Your task to perform on an android device: change notification settings in the gmail app Image 0: 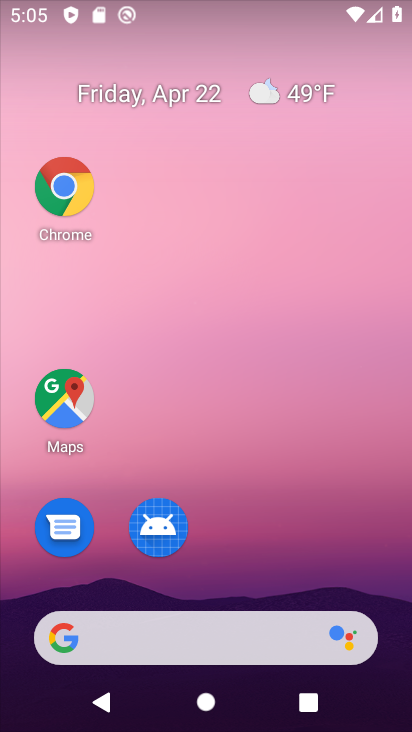
Step 0: drag from (307, 687) to (212, 107)
Your task to perform on an android device: change notification settings in the gmail app Image 1: 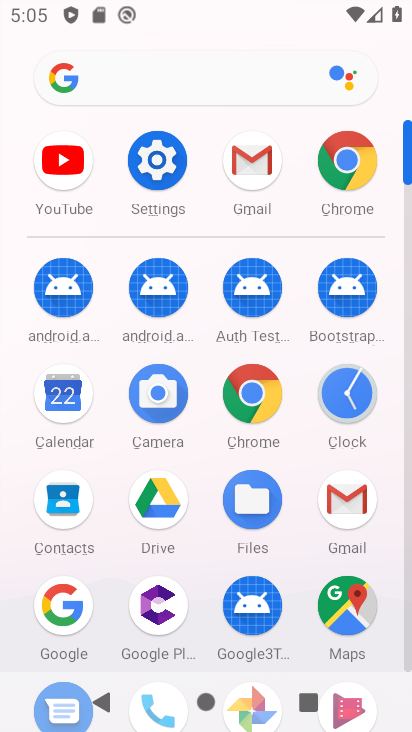
Step 1: click (248, 165)
Your task to perform on an android device: change notification settings in the gmail app Image 2: 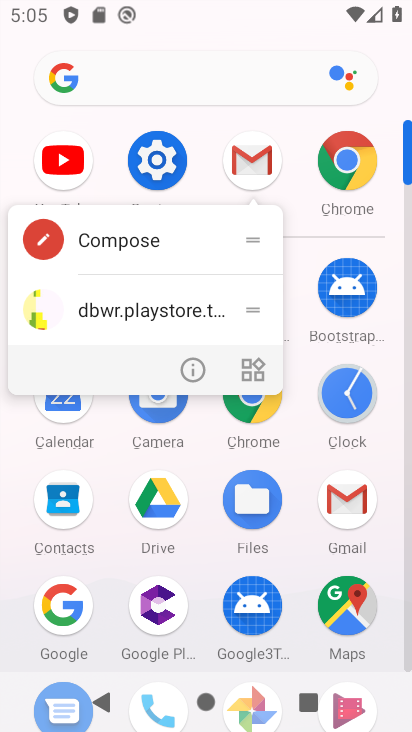
Step 2: click (141, 232)
Your task to perform on an android device: change notification settings in the gmail app Image 3: 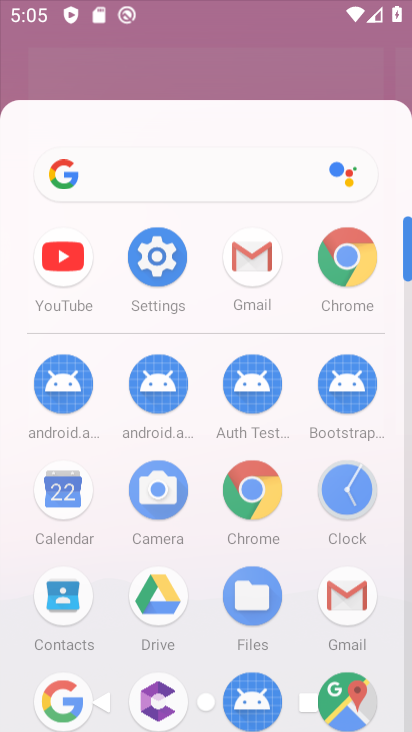
Step 3: click (126, 320)
Your task to perform on an android device: change notification settings in the gmail app Image 4: 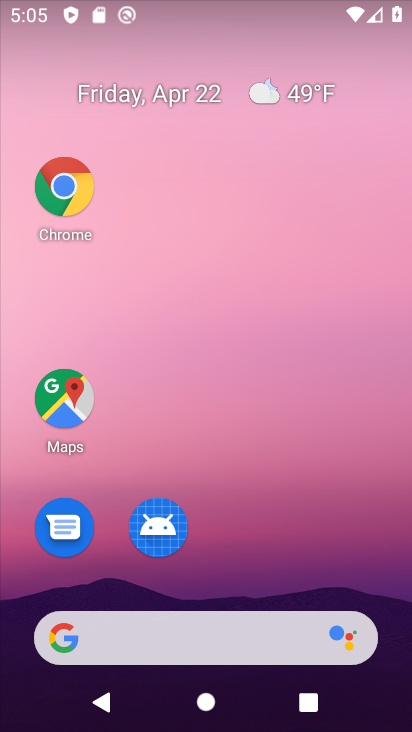
Step 4: drag from (261, 568) to (210, 74)
Your task to perform on an android device: change notification settings in the gmail app Image 5: 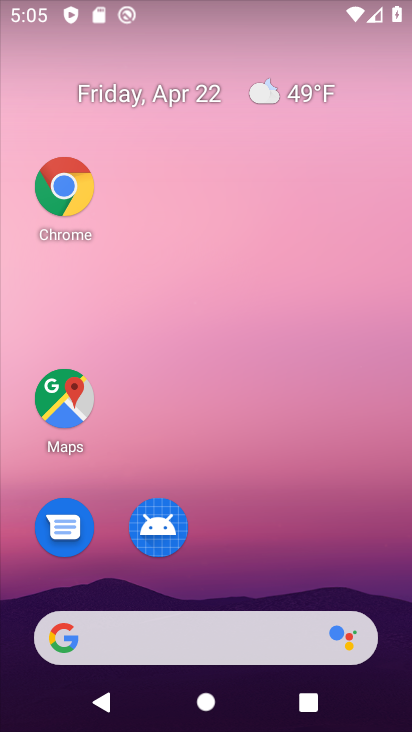
Step 5: drag from (242, 564) to (129, 13)
Your task to perform on an android device: change notification settings in the gmail app Image 6: 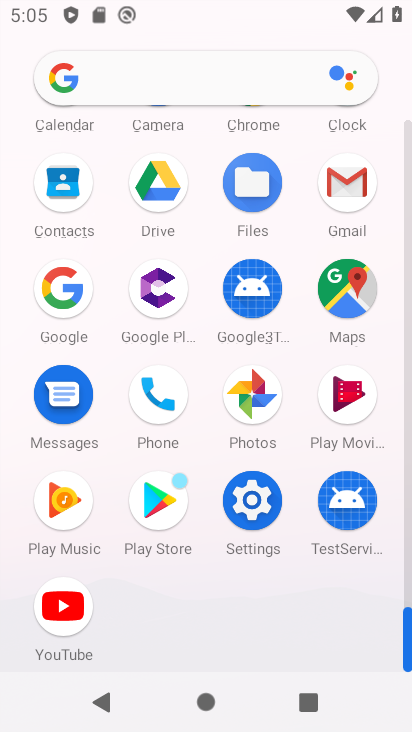
Step 6: click (340, 185)
Your task to perform on an android device: change notification settings in the gmail app Image 7: 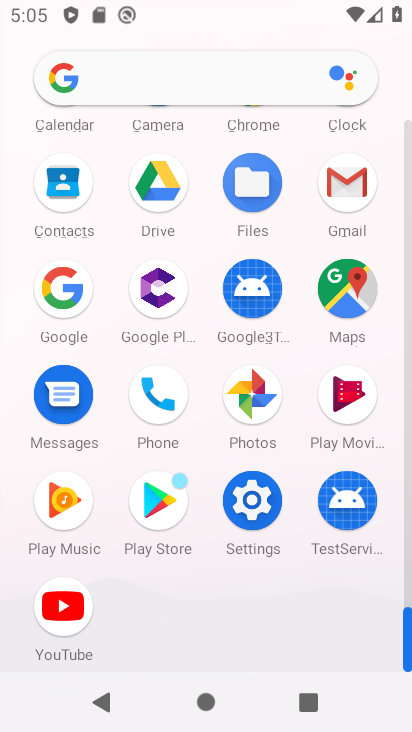
Step 7: click (340, 185)
Your task to perform on an android device: change notification settings in the gmail app Image 8: 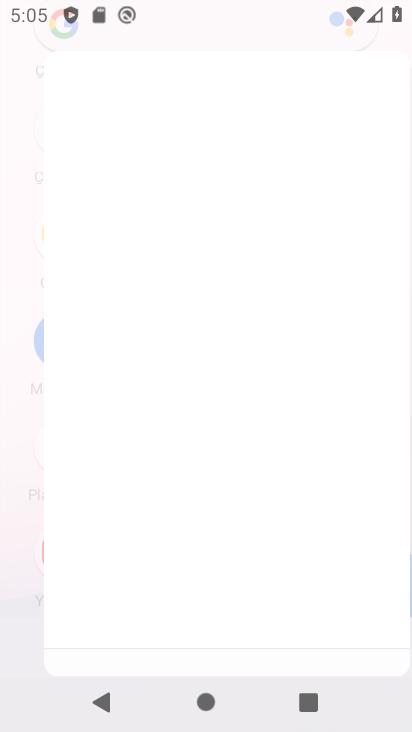
Step 8: click (341, 184)
Your task to perform on an android device: change notification settings in the gmail app Image 9: 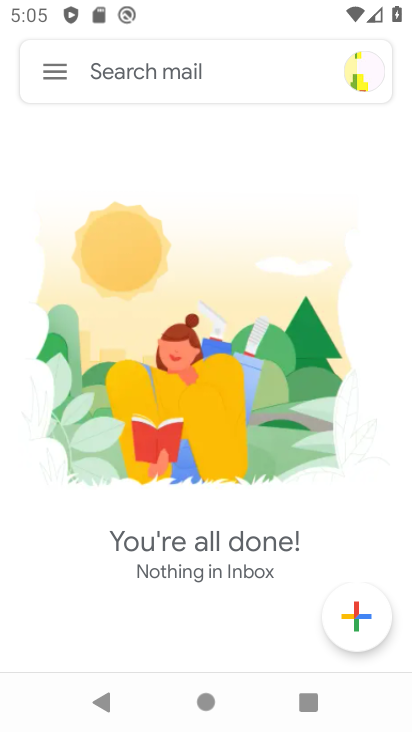
Step 9: drag from (55, 78) to (55, 196)
Your task to perform on an android device: change notification settings in the gmail app Image 10: 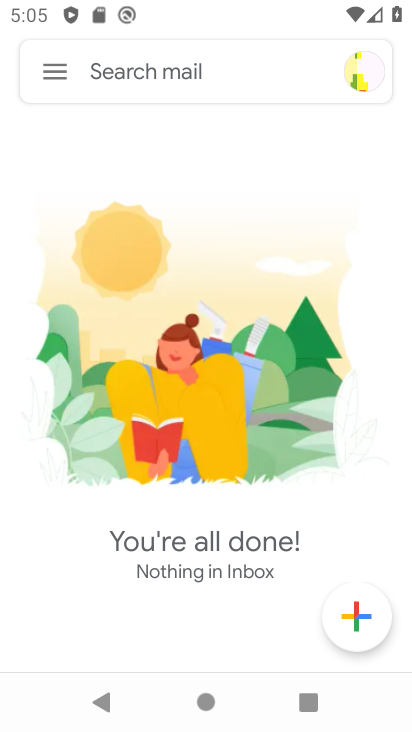
Step 10: click (54, 68)
Your task to perform on an android device: change notification settings in the gmail app Image 11: 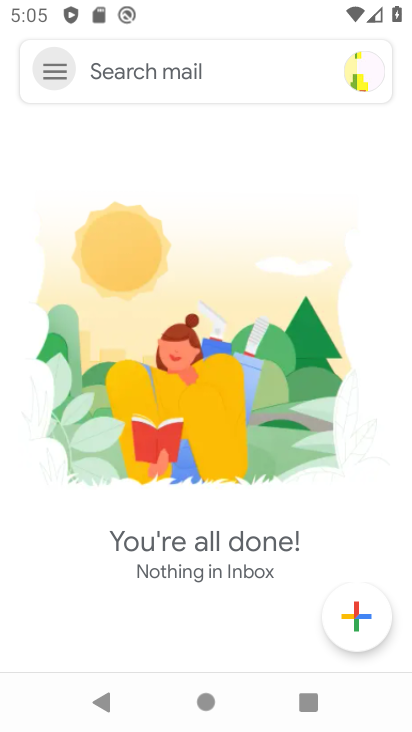
Step 11: click (54, 68)
Your task to perform on an android device: change notification settings in the gmail app Image 12: 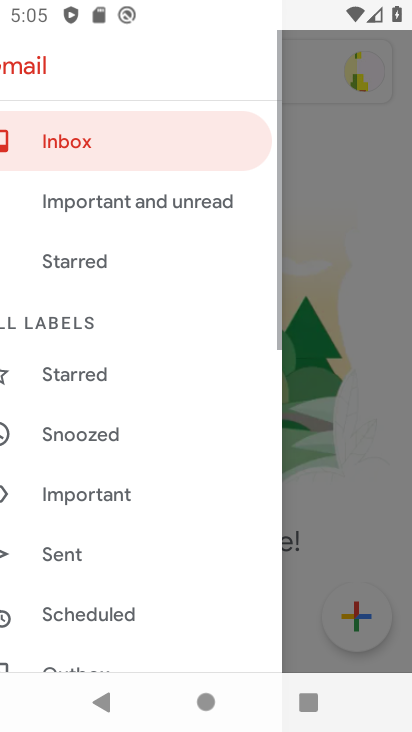
Step 12: click (54, 67)
Your task to perform on an android device: change notification settings in the gmail app Image 13: 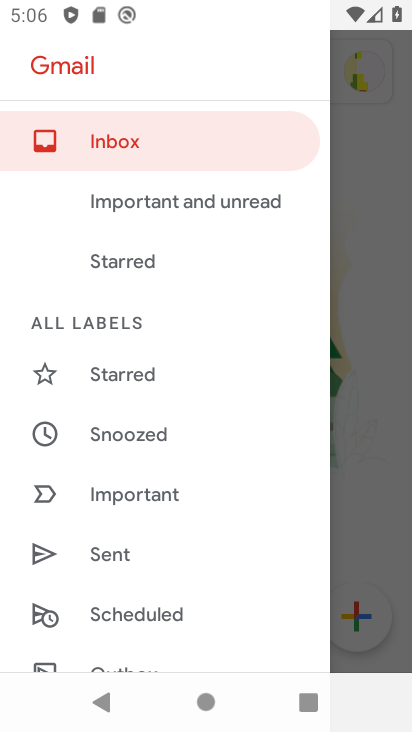
Step 13: drag from (95, 361) to (72, 186)
Your task to perform on an android device: change notification settings in the gmail app Image 14: 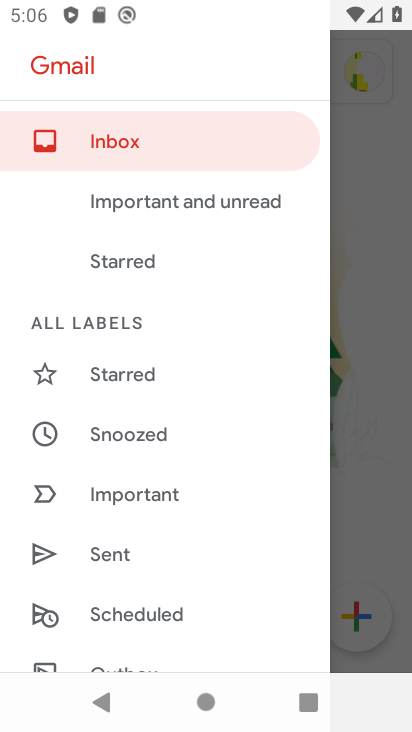
Step 14: drag from (146, 520) to (124, 233)
Your task to perform on an android device: change notification settings in the gmail app Image 15: 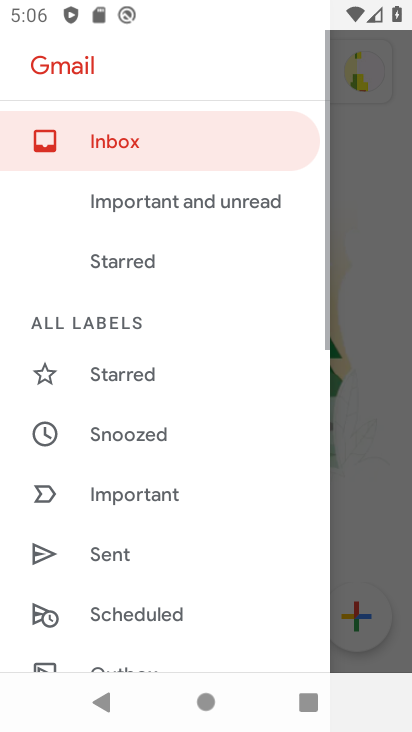
Step 15: drag from (194, 355) to (211, 179)
Your task to perform on an android device: change notification settings in the gmail app Image 16: 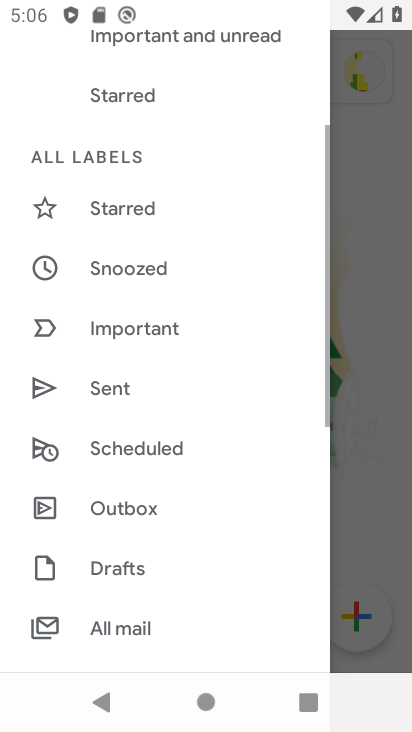
Step 16: drag from (163, 442) to (127, 222)
Your task to perform on an android device: change notification settings in the gmail app Image 17: 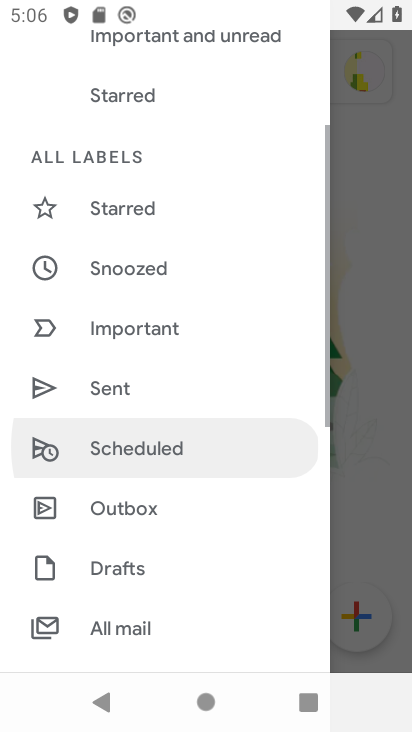
Step 17: drag from (96, 410) to (75, 160)
Your task to perform on an android device: change notification settings in the gmail app Image 18: 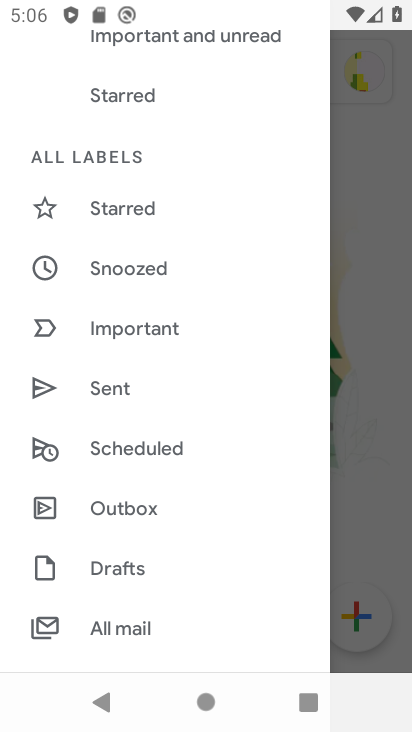
Step 18: drag from (151, 452) to (89, 81)
Your task to perform on an android device: change notification settings in the gmail app Image 19: 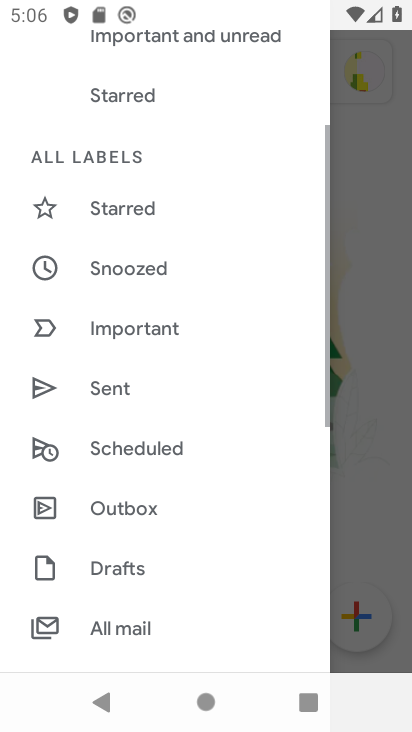
Step 19: drag from (172, 386) to (93, 72)
Your task to perform on an android device: change notification settings in the gmail app Image 20: 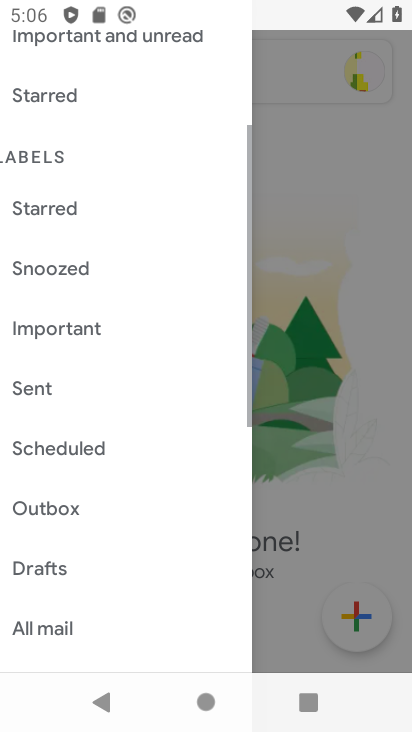
Step 20: drag from (104, 358) to (99, 36)
Your task to perform on an android device: change notification settings in the gmail app Image 21: 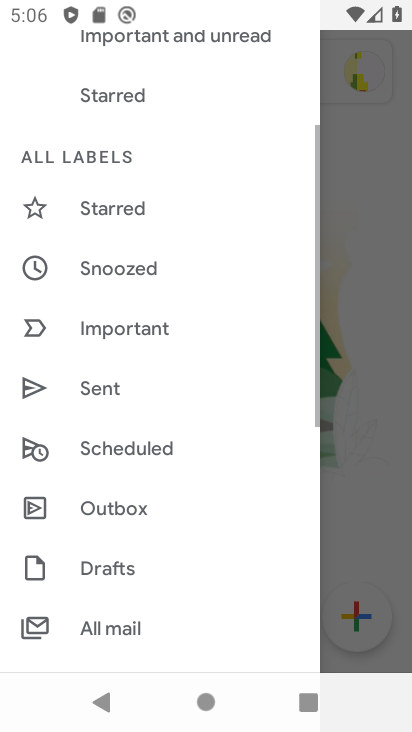
Step 21: drag from (99, 321) to (99, 122)
Your task to perform on an android device: change notification settings in the gmail app Image 22: 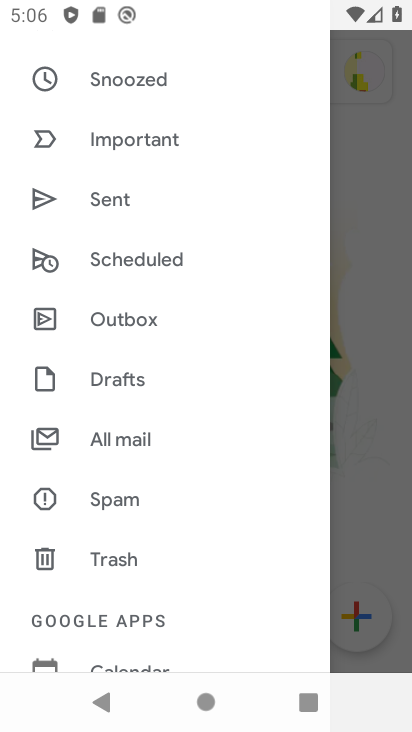
Step 22: drag from (184, 457) to (133, 131)
Your task to perform on an android device: change notification settings in the gmail app Image 23: 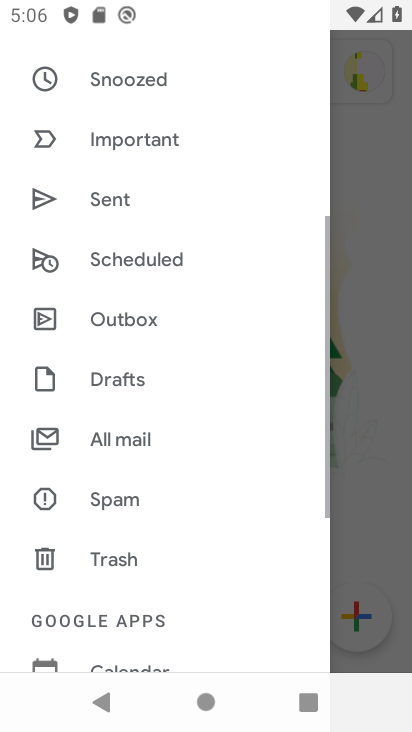
Step 23: drag from (158, 411) to (121, 104)
Your task to perform on an android device: change notification settings in the gmail app Image 24: 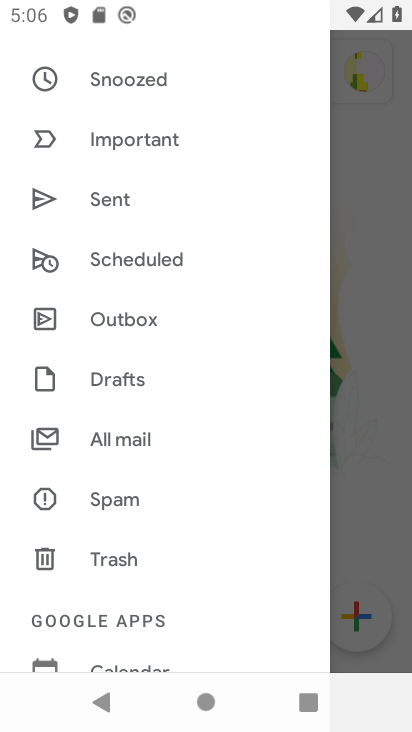
Step 24: drag from (155, 541) to (133, 184)
Your task to perform on an android device: change notification settings in the gmail app Image 25: 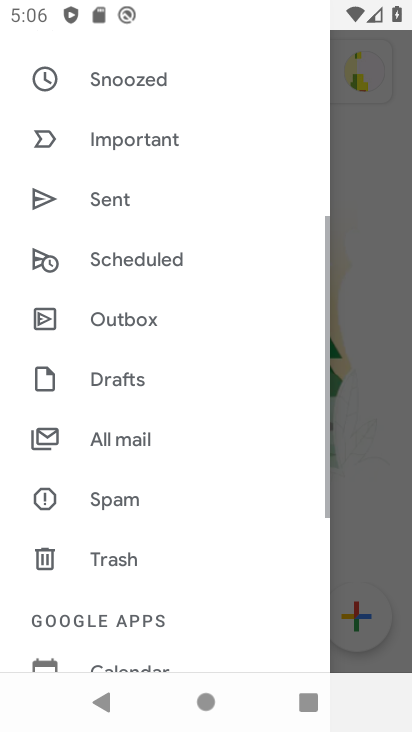
Step 25: drag from (134, 407) to (99, 178)
Your task to perform on an android device: change notification settings in the gmail app Image 26: 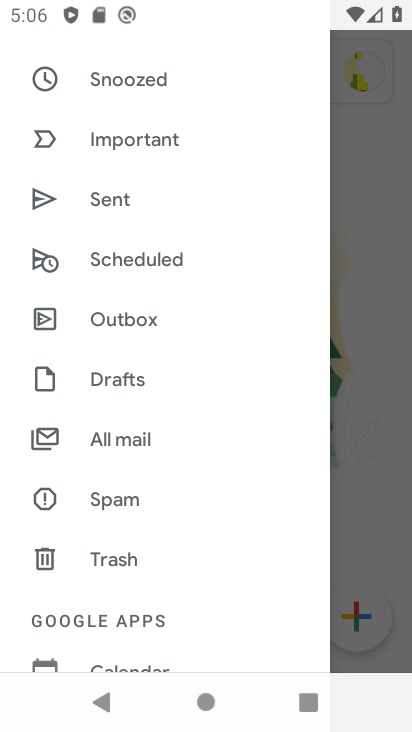
Step 26: drag from (147, 523) to (132, 171)
Your task to perform on an android device: change notification settings in the gmail app Image 27: 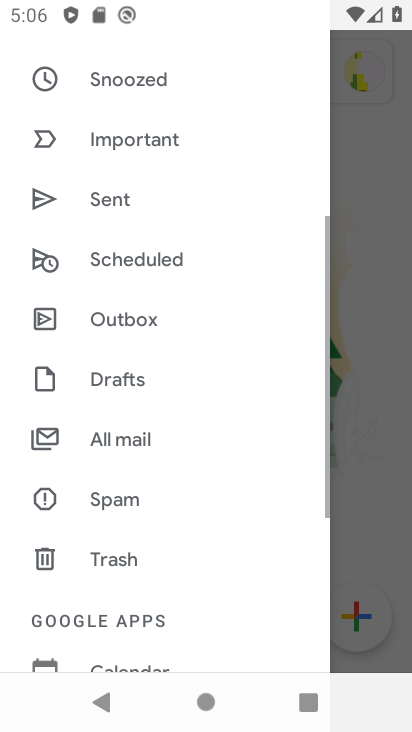
Step 27: drag from (147, 198) to (147, 140)
Your task to perform on an android device: change notification settings in the gmail app Image 28: 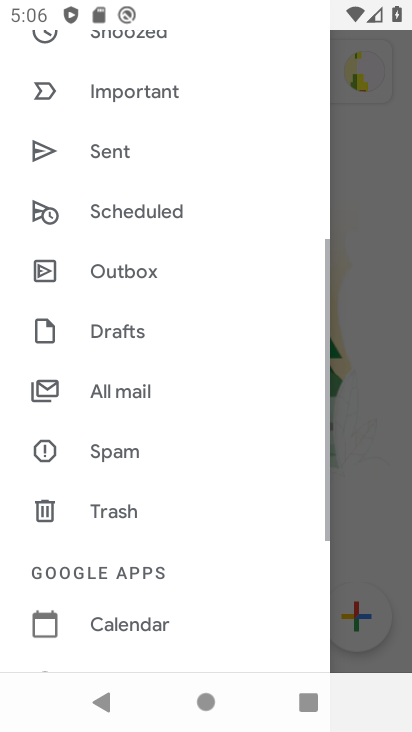
Step 28: drag from (154, 592) to (167, 317)
Your task to perform on an android device: change notification settings in the gmail app Image 29: 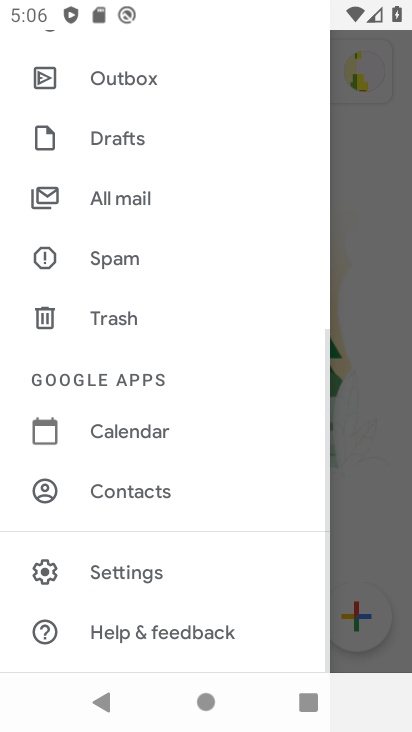
Step 29: click (122, 571)
Your task to perform on an android device: change notification settings in the gmail app Image 30: 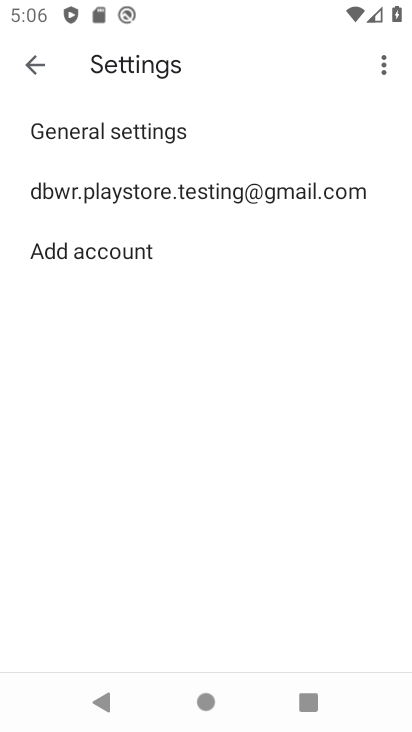
Step 30: click (139, 196)
Your task to perform on an android device: change notification settings in the gmail app Image 31: 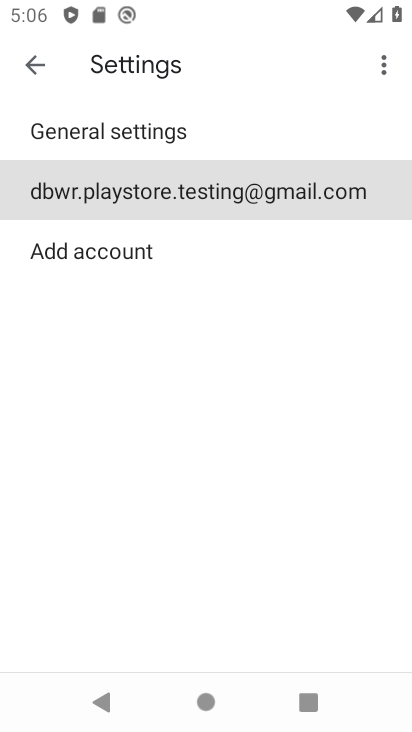
Step 31: click (140, 196)
Your task to perform on an android device: change notification settings in the gmail app Image 32: 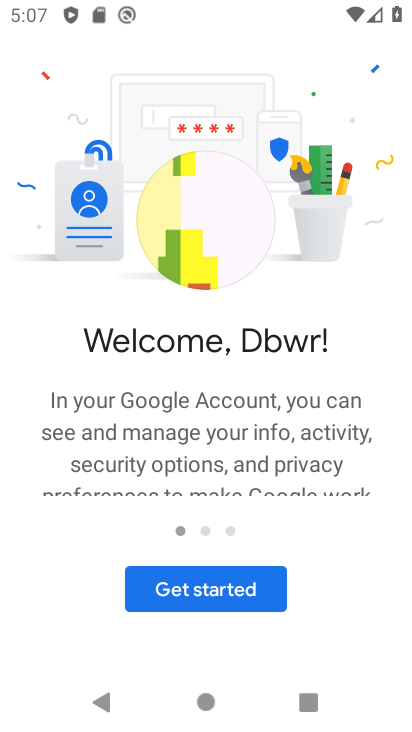
Step 32: click (208, 591)
Your task to perform on an android device: change notification settings in the gmail app Image 33: 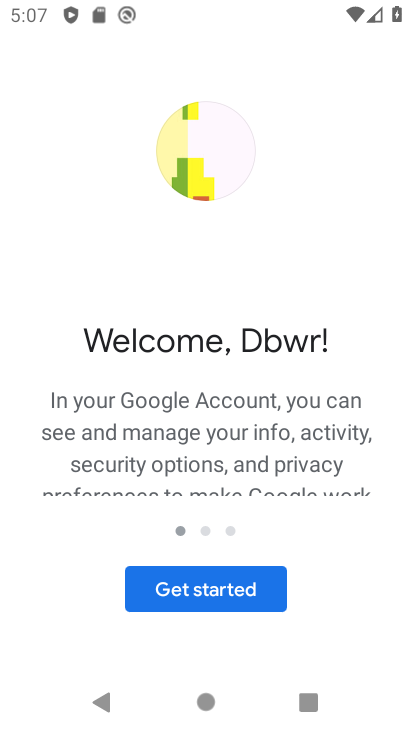
Step 33: click (214, 591)
Your task to perform on an android device: change notification settings in the gmail app Image 34: 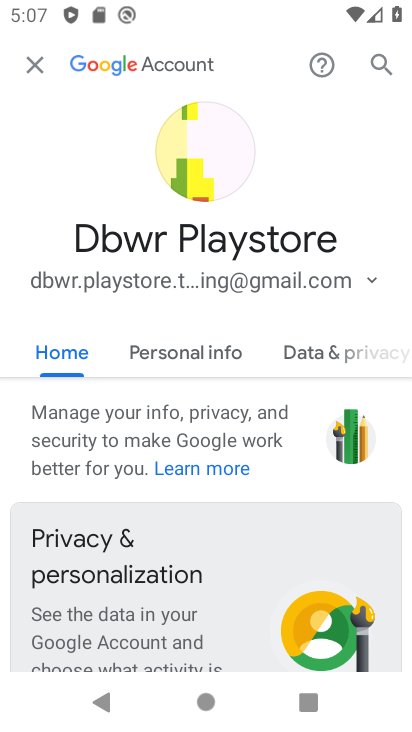
Step 34: click (222, 588)
Your task to perform on an android device: change notification settings in the gmail app Image 35: 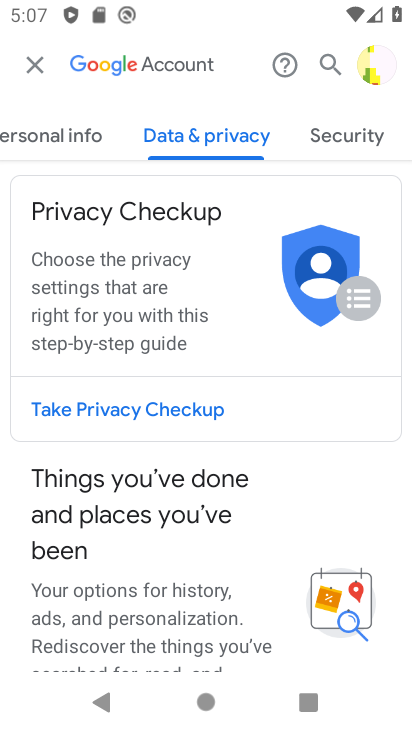
Step 35: click (32, 64)
Your task to perform on an android device: change notification settings in the gmail app Image 36: 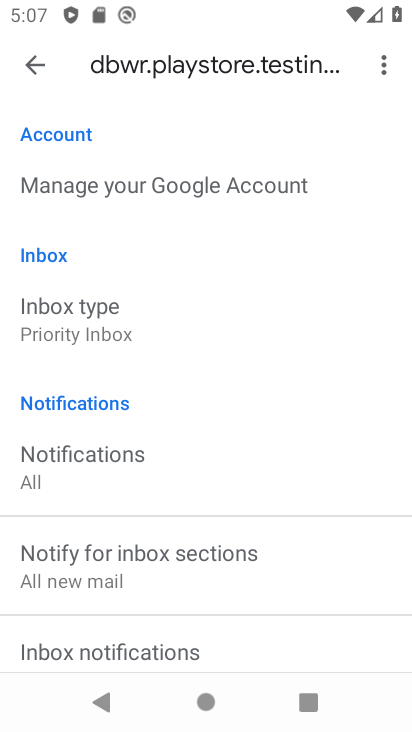
Step 36: click (96, 459)
Your task to perform on an android device: change notification settings in the gmail app Image 37: 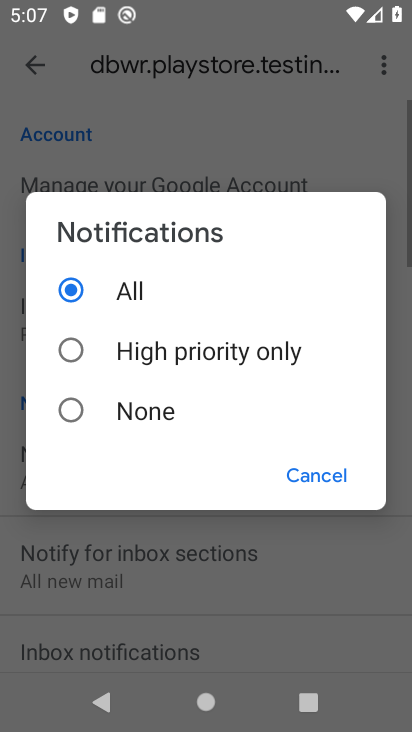
Step 37: click (98, 457)
Your task to perform on an android device: change notification settings in the gmail app Image 38: 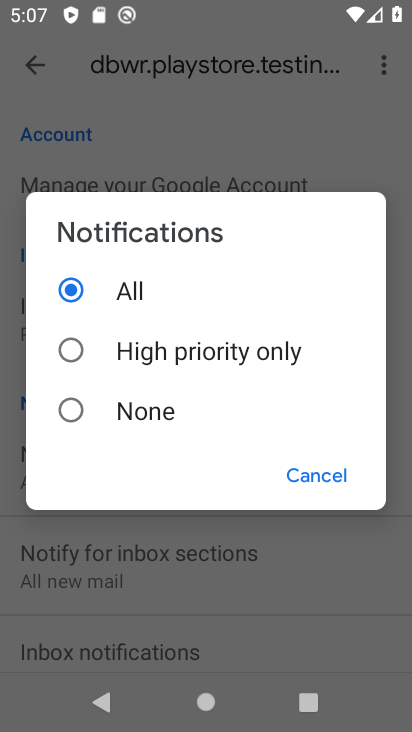
Step 38: click (62, 344)
Your task to perform on an android device: change notification settings in the gmail app Image 39: 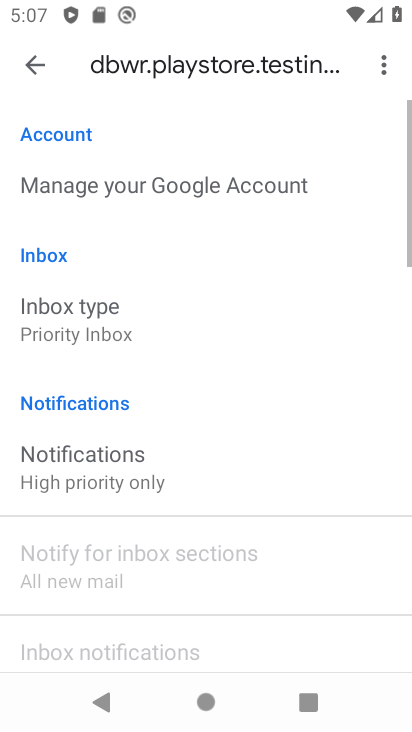
Step 39: click (68, 345)
Your task to perform on an android device: change notification settings in the gmail app Image 40: 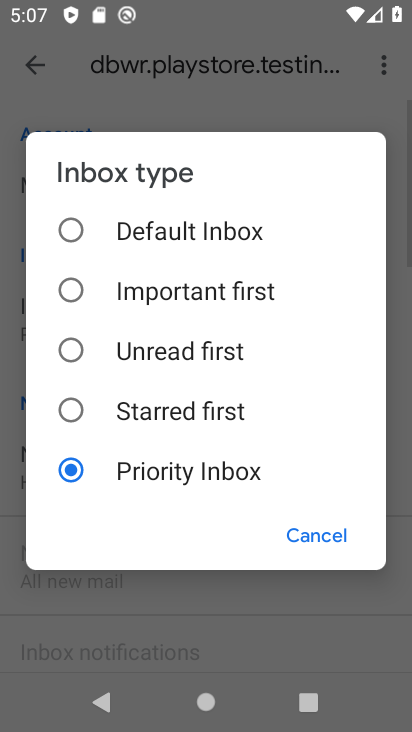
Step 40: task complete